Your task to perform on an android device: turn off priority inbox in the gmail app Image 0: 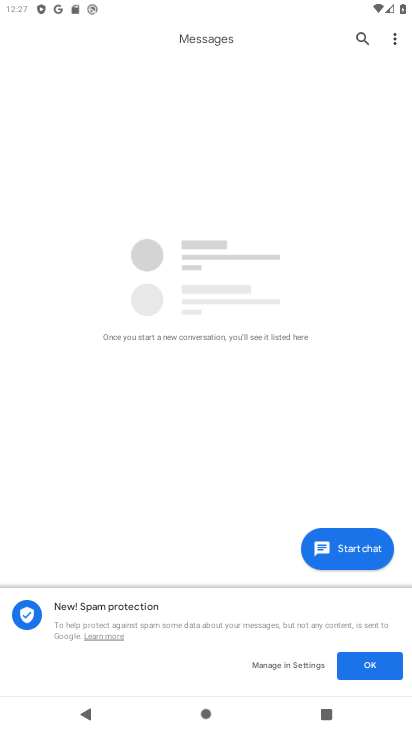
Step 0: press home button
Your task to perform on an android device: turn off priority inbox in the gmail app Image 1: 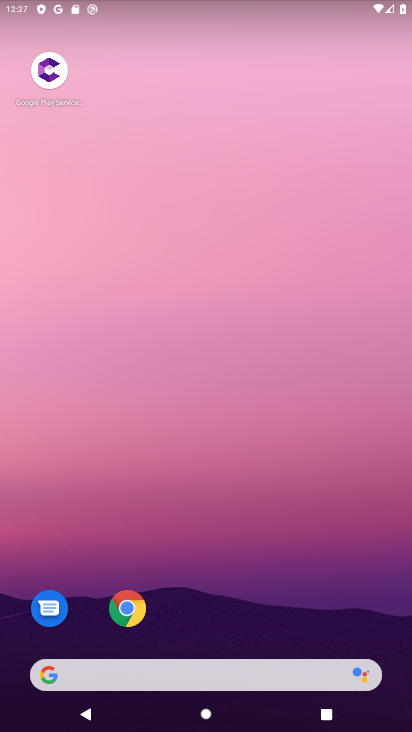
Step 1: drag from (283, 611) to (292, 136)
Your task to perform on an android device: turn off priority inbox in the gmail app Image 2: 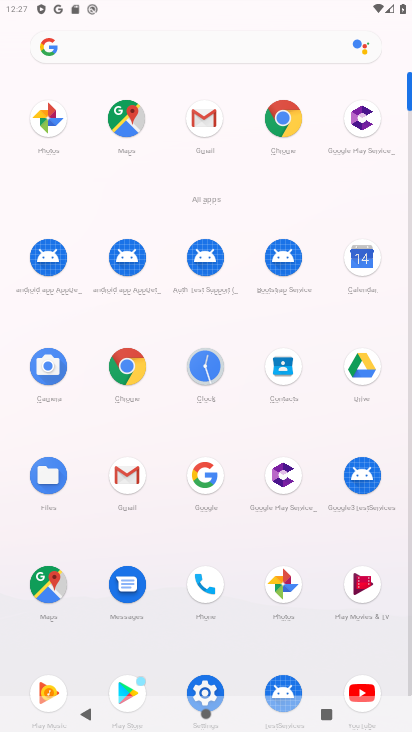
Step 2: click (203, 123)
Your task to perform on an android device: turn off priority inbox in the gmail app Image 3: 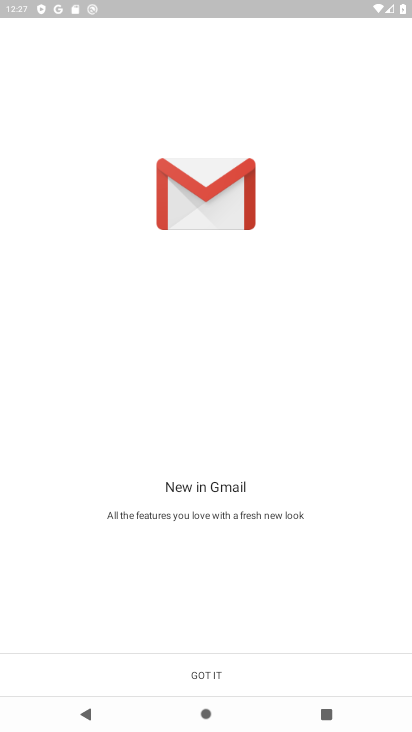
Step 3: click (206, 683)
Your task to perform on an android device: turn off priority inbox in the gmail app Image 4: 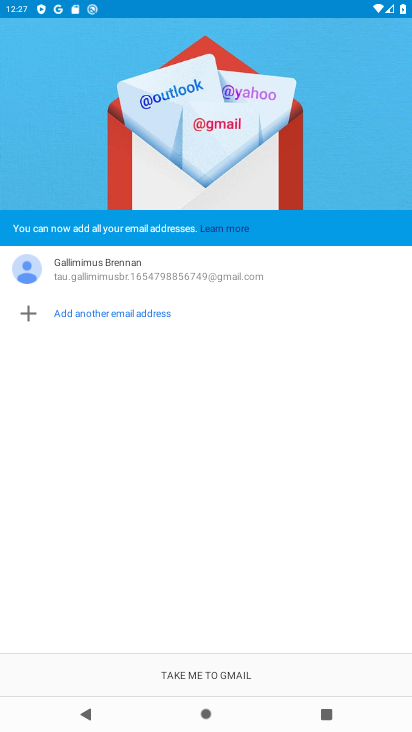
Step 4: click (206, 683)
Your task to perform on an android device: turn off priority inbox in the gmail app Image 5: 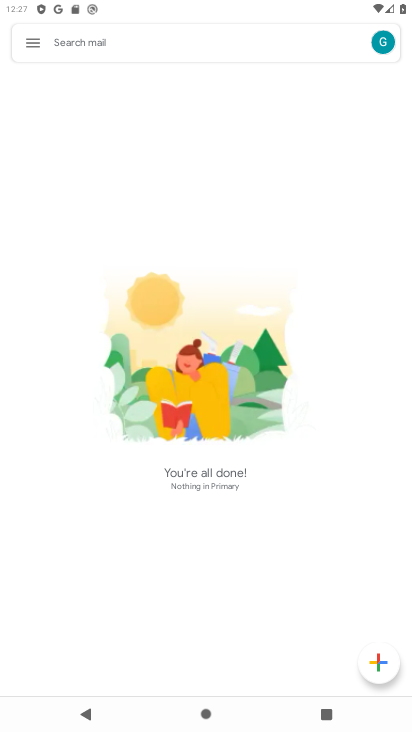
Step 5: click (31, 39)
Your task to perform on an android device: turn off priority inbox in the gmail app Image 6: 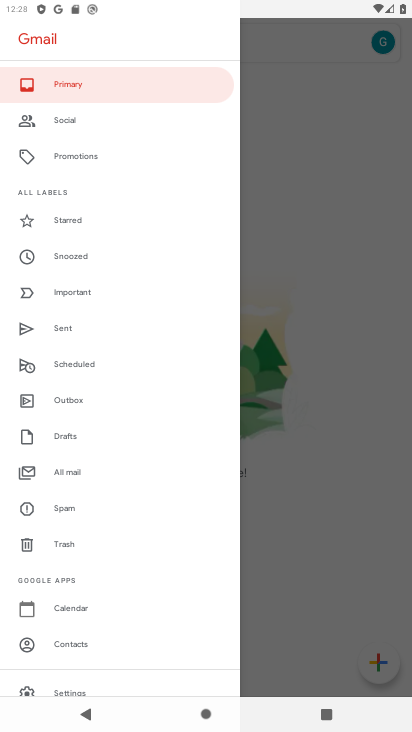
Step 6: drag from (98, 662) to (74, 380)
Your task to perform on an android device: turn off priority inbox in the gmail app Image 7: 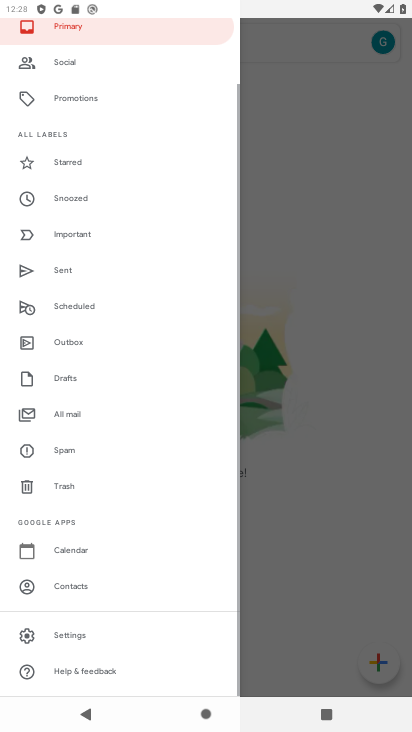
Step 7: click (82, 636)
Your task to perform on an android device: turn off priority inbox in the gmail app Image 8: 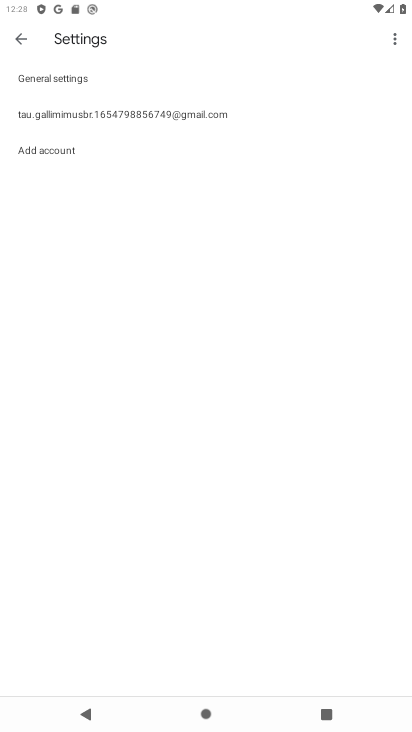
Step 8: click (151, 115)
Your task to perform on an android device: turn off priority inbox in the gmail app Image 9: 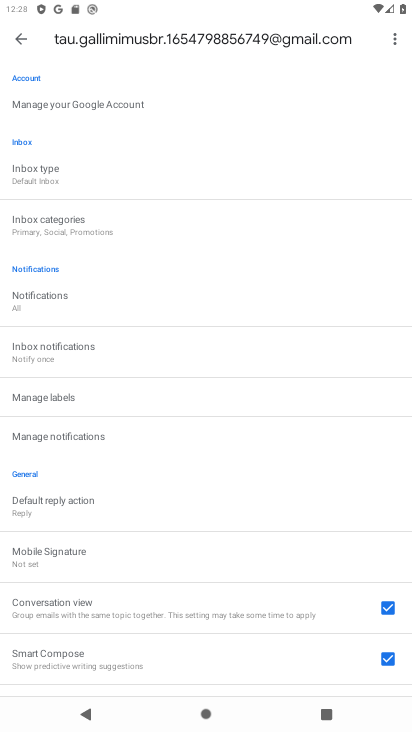
Step 9: click (123, 167)
Your task to perform on an android device: turn off priority inbox in the gmail app Image 10: 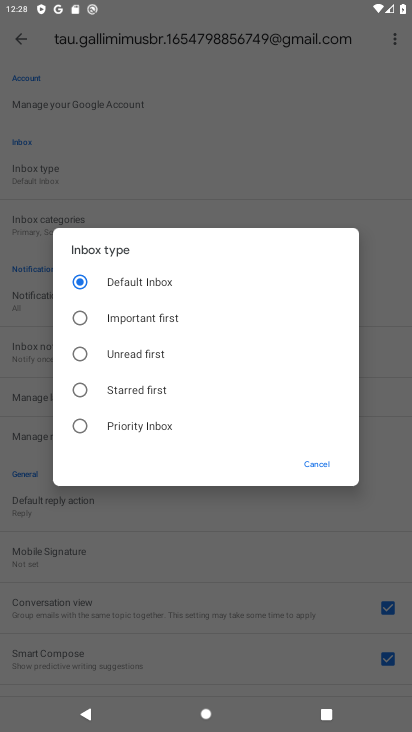
Step 10: task complete